Your task to perform on an android device: uninstall "Google Sheets" Image 0: 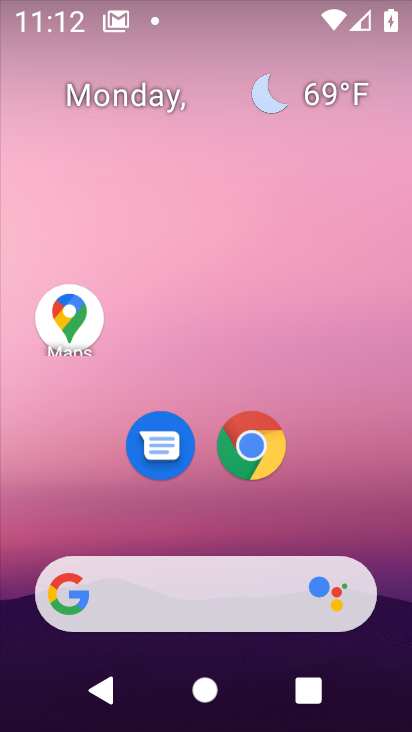
Step 0: drag from (251, 564) to (377, 72)
Your task to perform on an android device: uninstall "Google Sheets" Image 1: 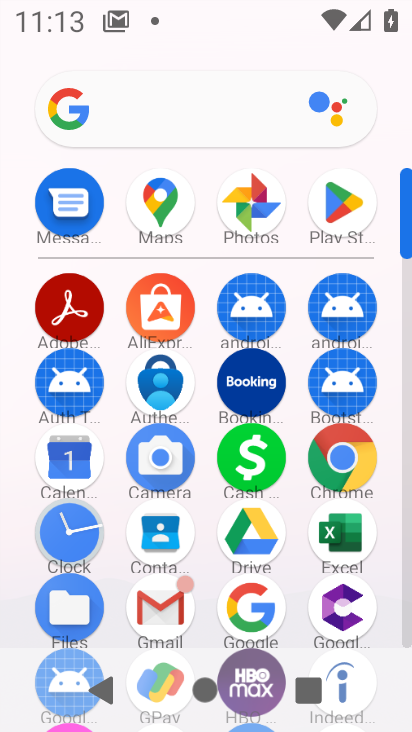
Step 1: click (349, 223)
Your task to perform on an android device: uninstall "Google Sheets" Image 2: 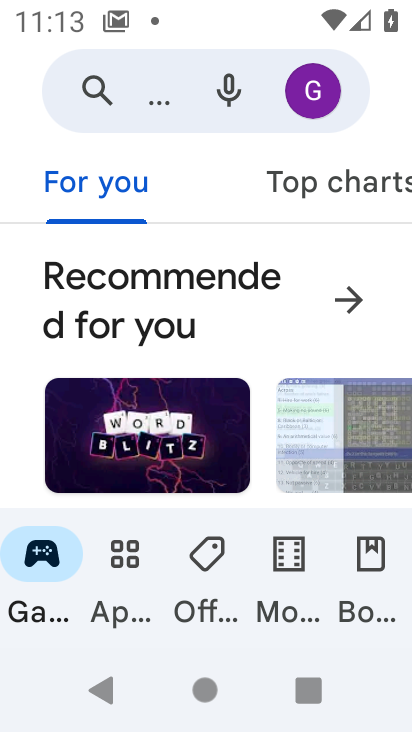
Step 2: click (108, 115)
Your task to perform on an android device: uninstall "Google Sheets" Image 3: 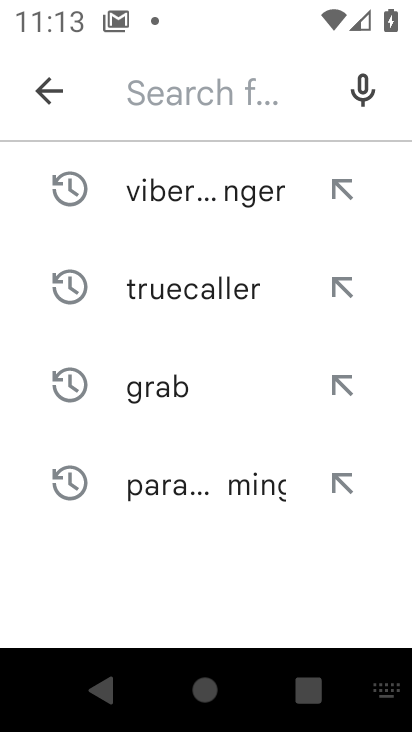
Step 3: type "Google Sheets"
Your task to perform on an android device: uninstall "Google Sheets" Image 4: 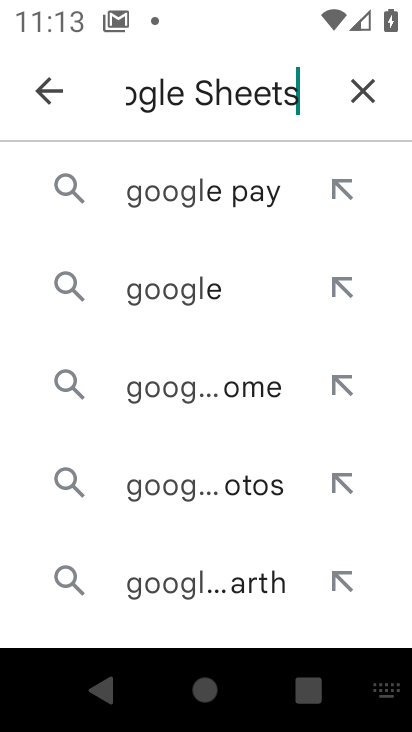
Step 4: type ""
Your task to perform on an android device: uninstall "Google Sheets" Image 5: 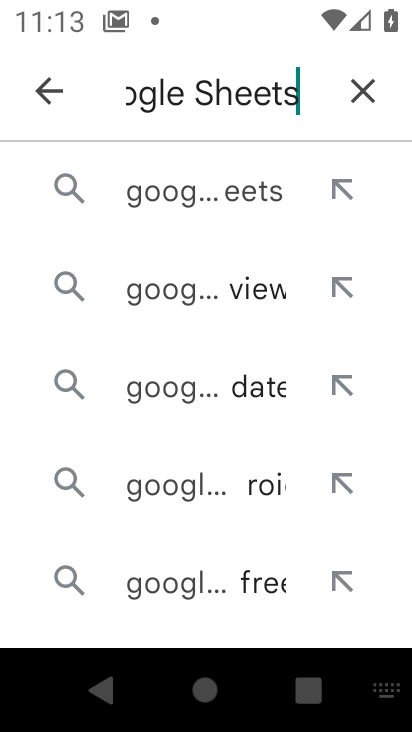
Step 5: click (262, 197)
Your task to perform on an android device: uninstall "Google Sheets" Image 6: 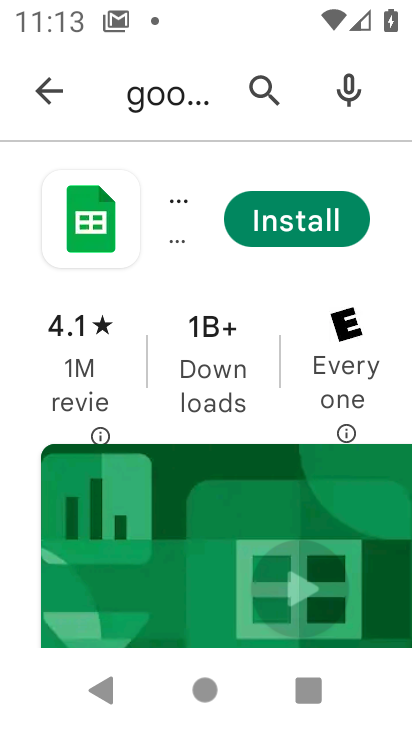
Step 6: task complete